Your task to perform on an android device: check android version Image 0: 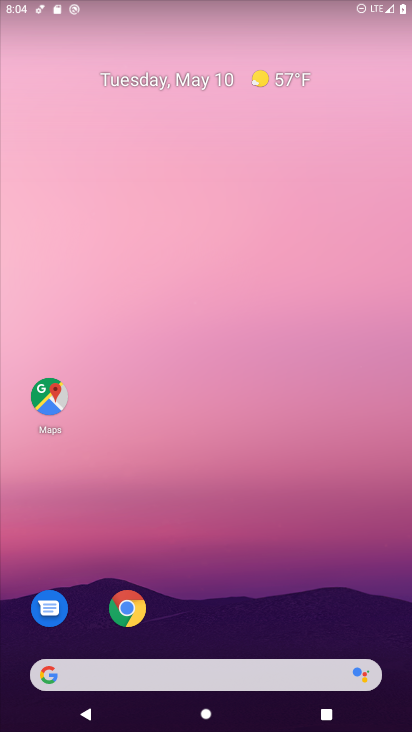
Step 0: drag from (318, 611) to (315, 112)
Your task to perform on an android device: check android version Image 1: 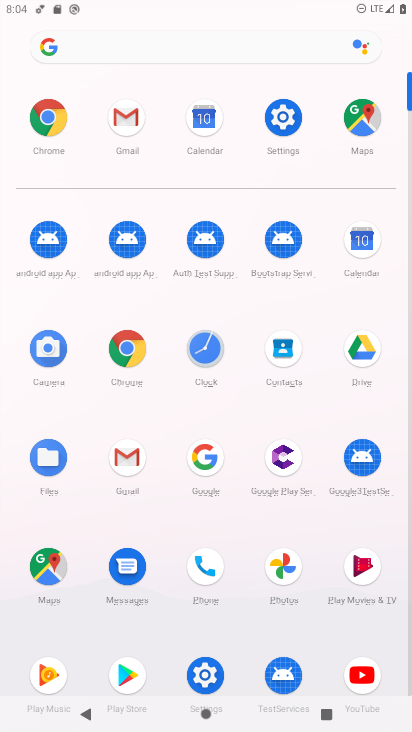
Step 1: click (205, 667)
Your task to perform on an android device: check android version Image 2: 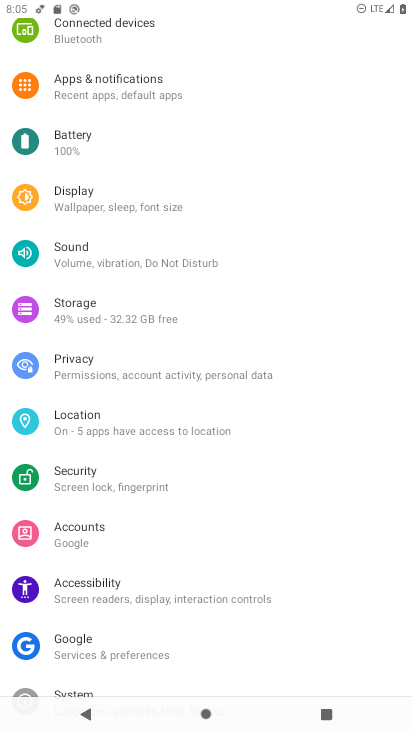
Step 2: drag from (177, 646) to (191, 29)
Your task to perform on an android device: check android version Image 3: 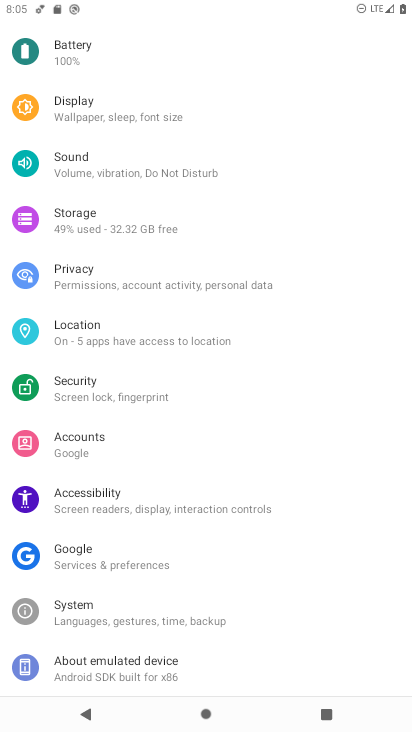
Step 3: click (144, 673)
Your task to perform on an android device: check android version Image 4: 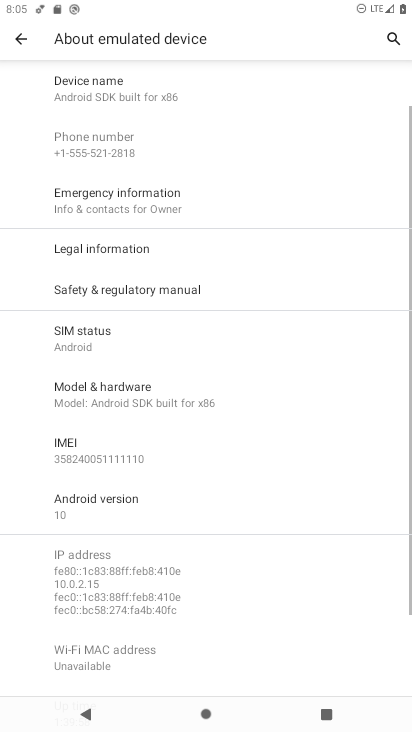
Step 4: click (113, 537)
Your task to perform on an android device: check android version Image 5: 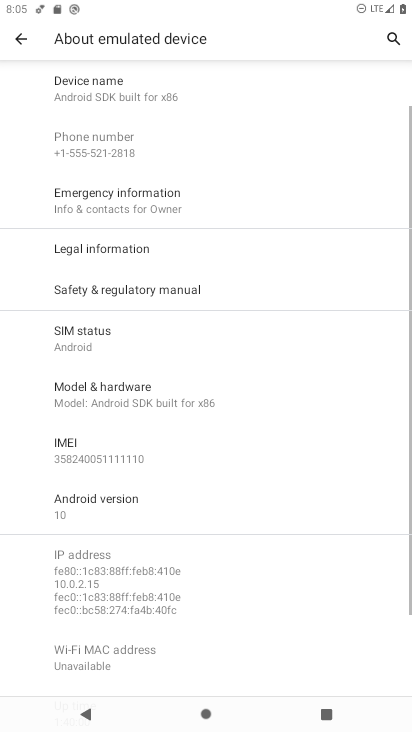
Step 5: click (95, 504)
Your task to perform on an android device: check android version Image 6: 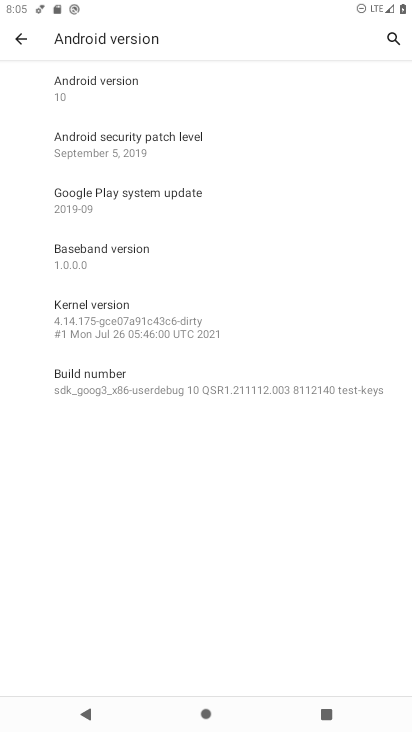
Step 6: task complete